Your task to perform on an android device: Open calendar and show me the first week of next month Image 0: 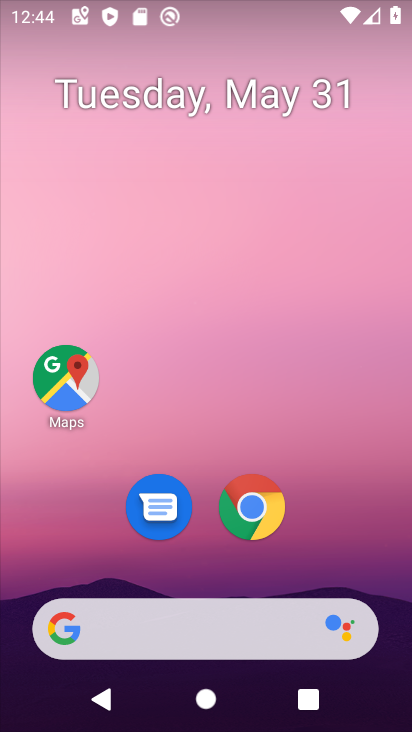
Step 0: drag from (381, 525) to (337, 79)
Your task to perform on an android device: Open calendar and show me the first week of next month Image 1: 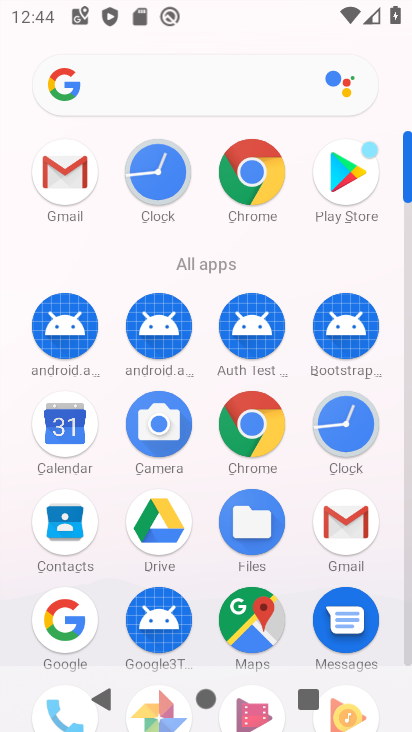
Step 1: click (72, 457)
Your task to perform on an android device: Open calendar and show me the first week of next month Image 2: 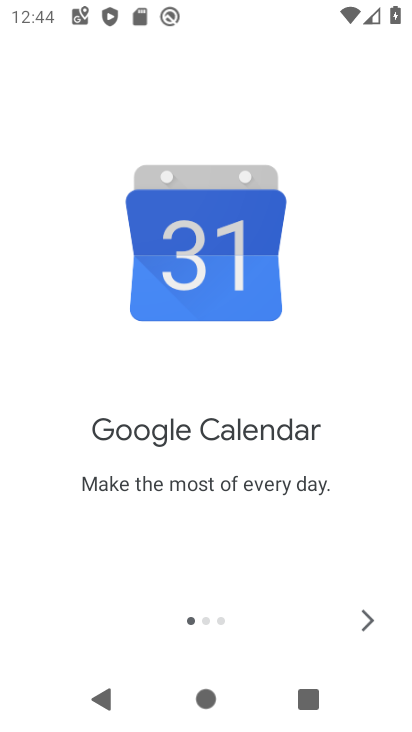
Step 2: click (383, 631)
Your task to perform on an android device: Open calendar and show me the first week of next month Image 3: 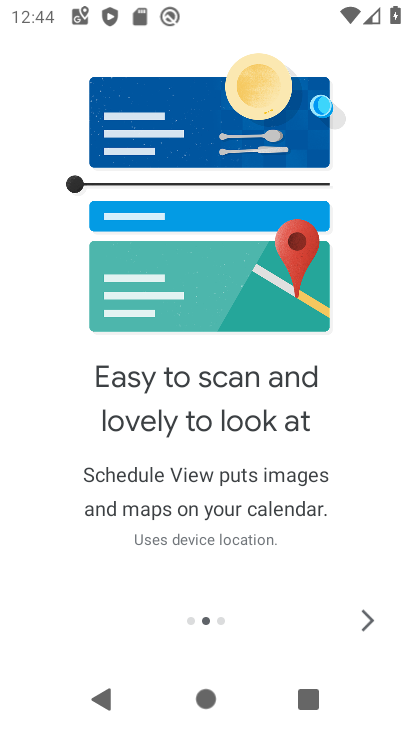
Step 3: click (383, 631)
Your task to perform on an android device: Open calendar and show me the first week of next month Image 4: 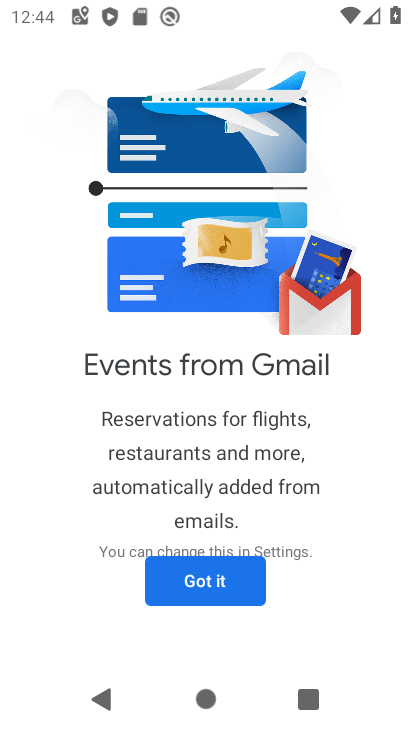
Step 4: click (250, 579)
Your task to perform on an android device: Open calendar and show me the first week of next month Image 5: 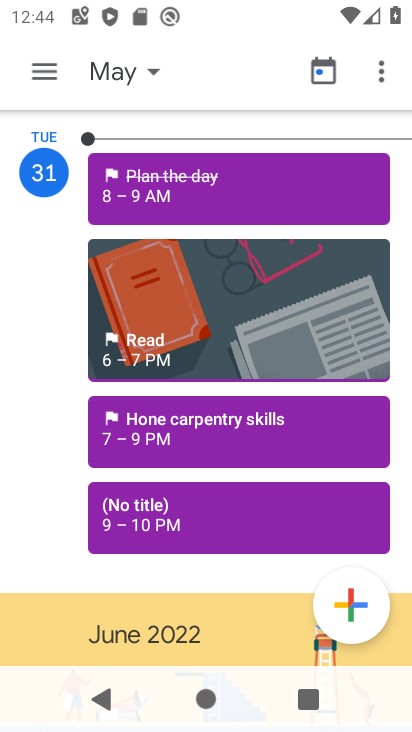
Step 5: click (141, 76)
Your task to perform on an android device: Open calendar and show me the first week of next month Image 6: 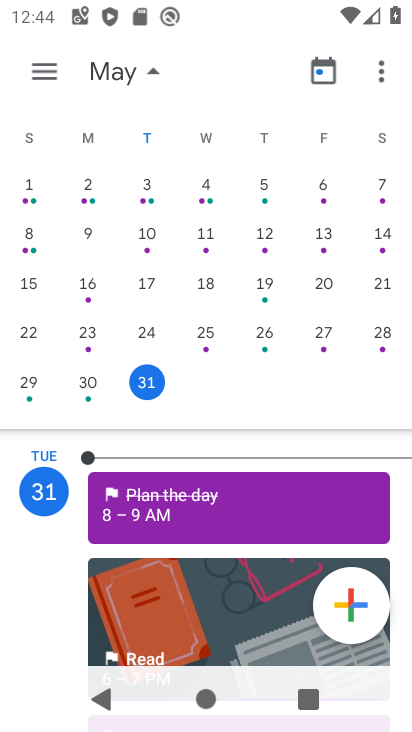
Step 6: task complete